Your task to perform on an android device: toggle location history Image 0: 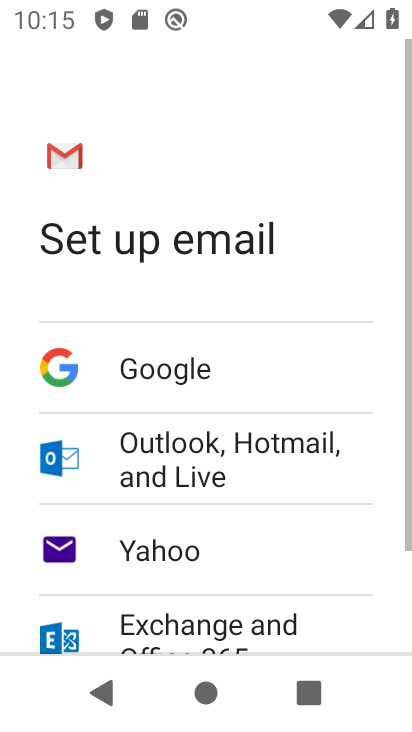
Step 0: press home button
Your task to perform on an android device: toggle location history Image 1: 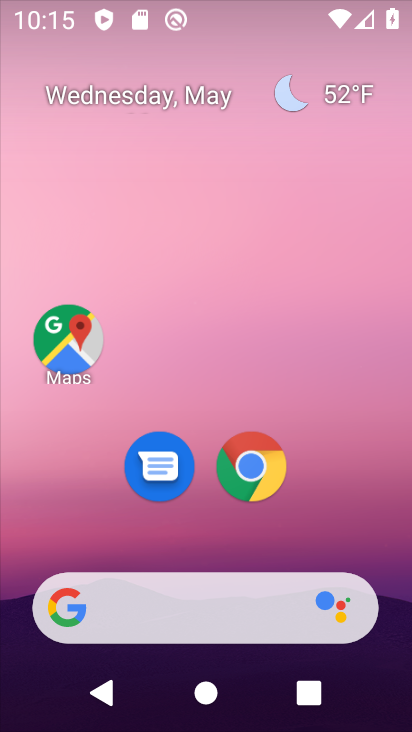
Step 1: drag from (244, 548) to (316, 27)
Your task to perform on an android device: toggle location history Image 2: 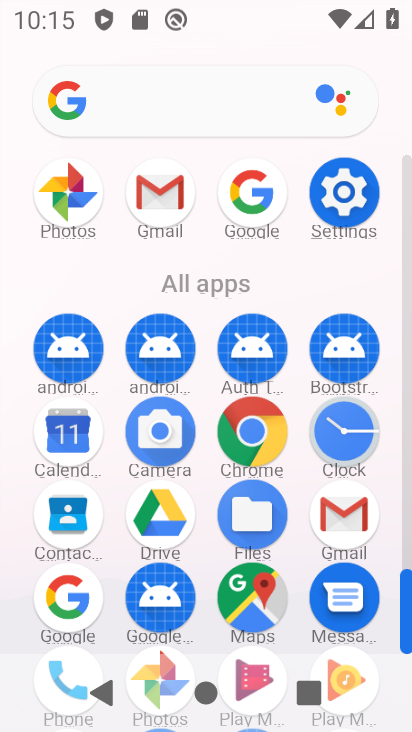
Step 2: click (342, 182)
Your task to perform on an android device: toggle location history Image 3: 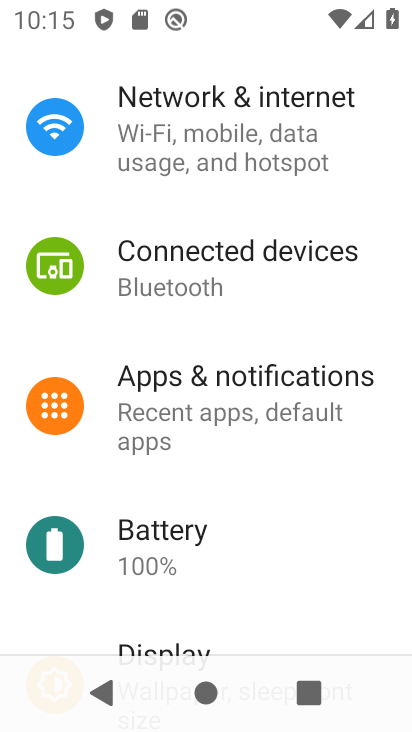
Step 3: drag from (281, 573) to (326, 2)
Your task to perform on an android device: toggle location history Image 4: 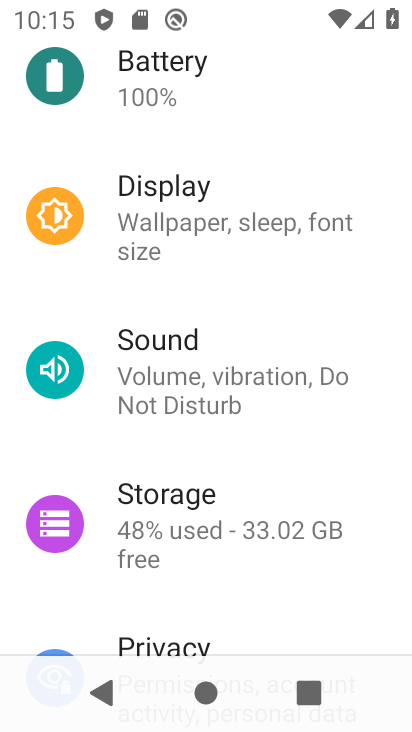
Step 4: drag from (247, 556) to (250, 126)
Your task to perform on an android device: toggle location history Image 5: 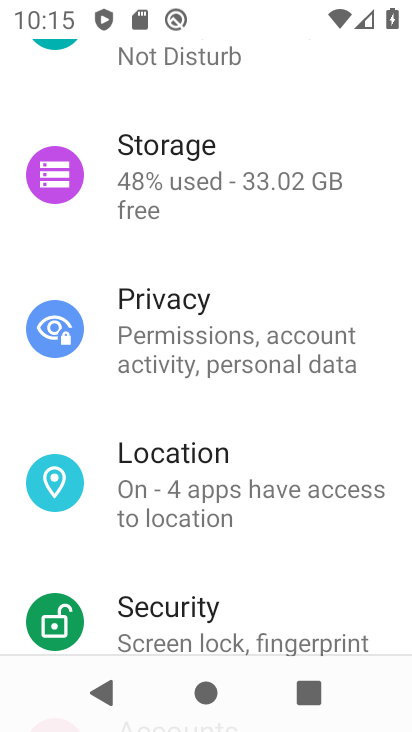
Step 5: click (194, 478)
Your task to perform on an android device: toggle location history Image 6: 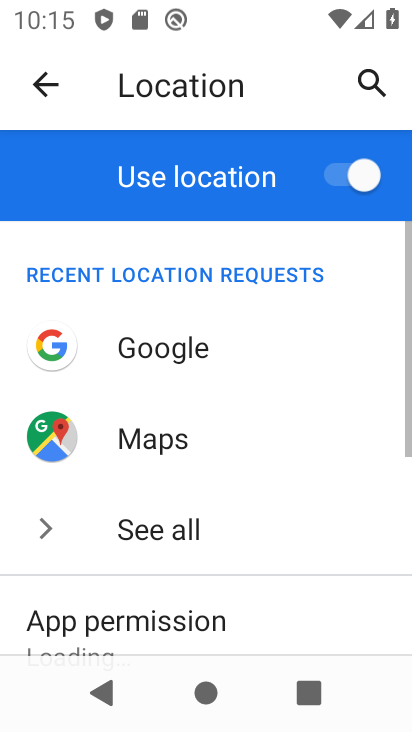
Step 6: drag from (228, 623) to (230, 48)
Your task to perform on an android device: toggle location history Image 7: 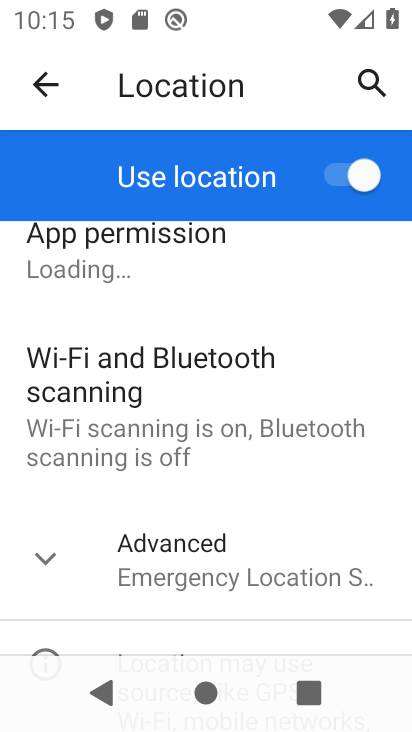
Step 7: click (160, 560)
Your task to perform on an android device: toggle location history Image 8: 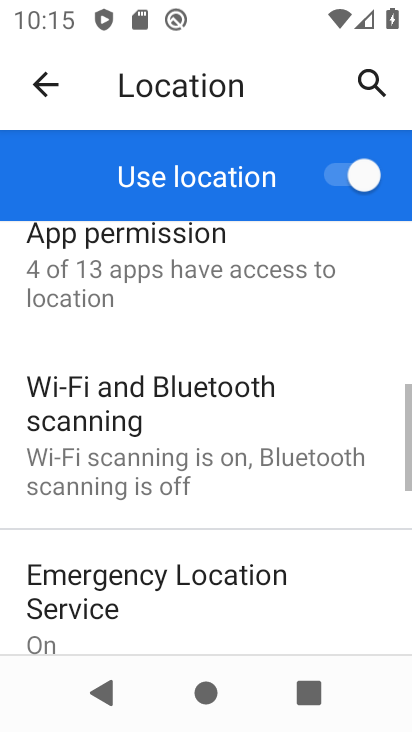
Step 8: drag from (238, 580) to (206, 218)
Your task to perform on an android device: toggle location history Image 9: 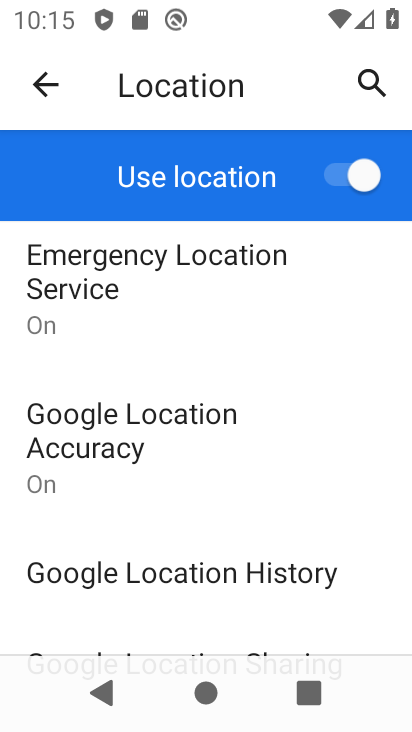
Step 9: click (176, 575)
Your task to perform on an android device: toggle location history Image 10: 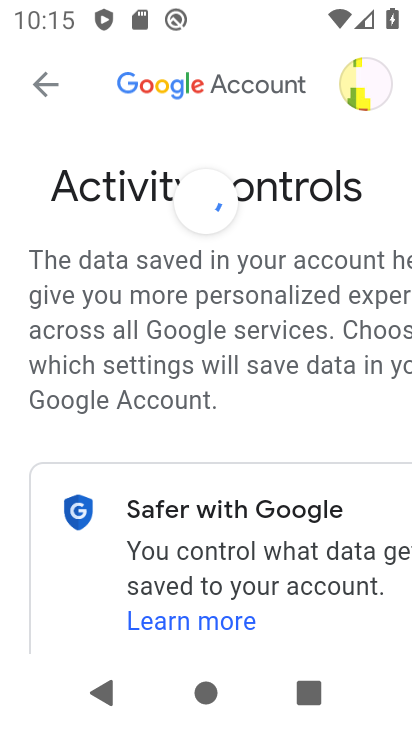
Step 10: drag from (290, 573) to (291, 72)
Your task to perform on an android device: toggle location history Image 11: 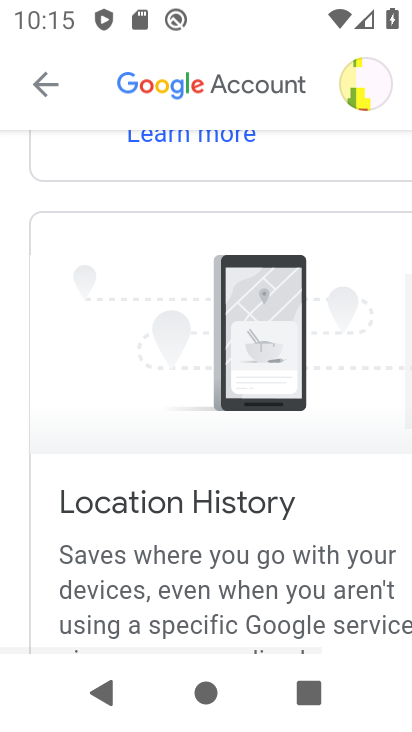
Step 11: drag from (292, 578) to (276, 228)
Your task to perform on an android device: toggle location history Image 12: 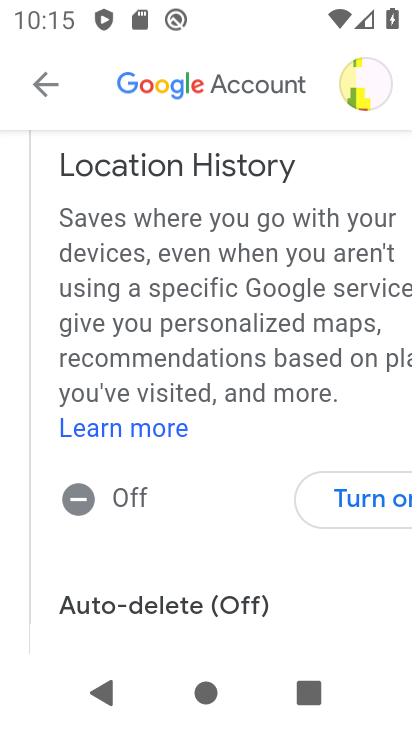
Step 12: click (354, 498)
Your task to perform on an android device: toggle location history Image 13: 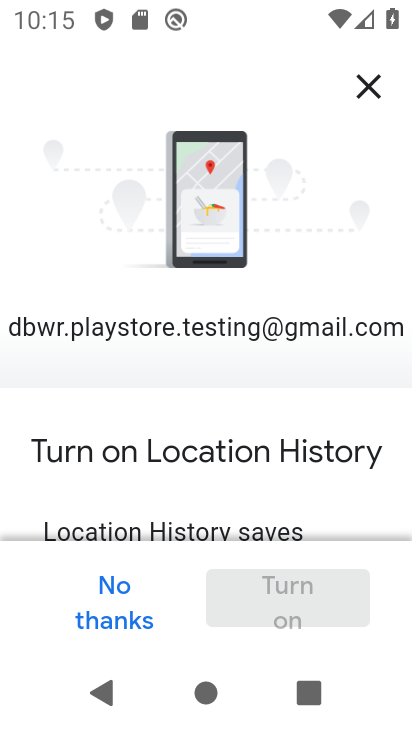
Step 13: drag from (318, 500) to (313, 32)
Your task to perform on an android device: toggle location history Image 14: 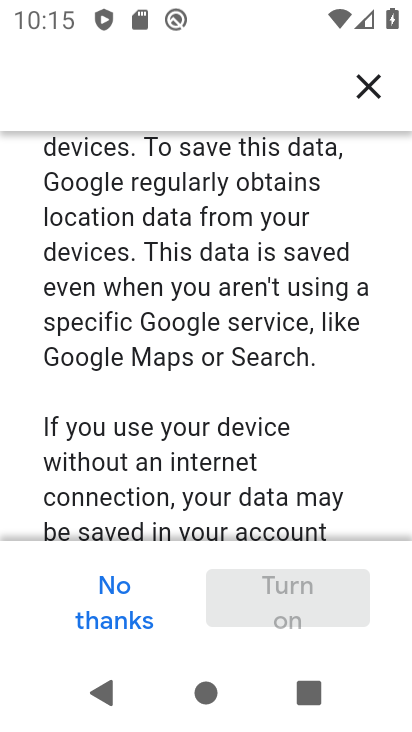
Step 14: drag from (337, 469) to (304, 76)
Your task to perform on an android device: toggle location history Image 15: 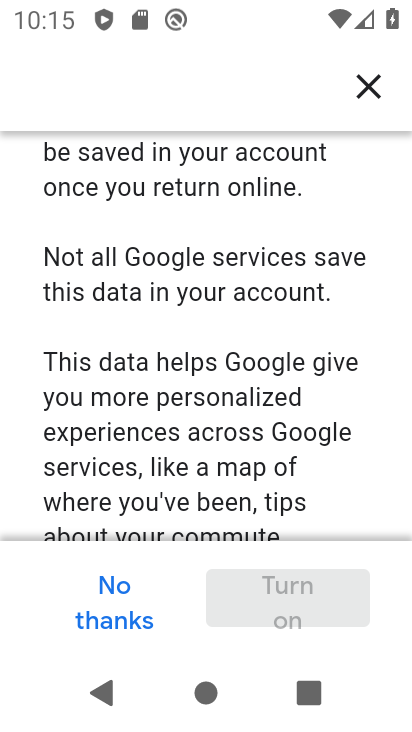
Step 15: drag from (327, 521) to (297, 142)
Your task to perform on an android device: toggle location history Image 16: 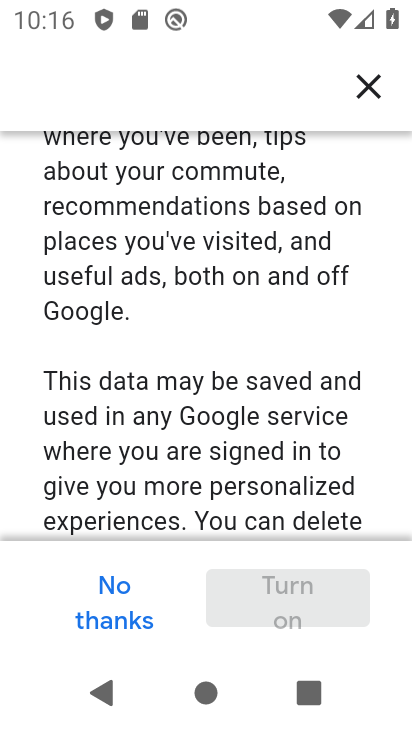
Step 16: drag from (320, 501) to (305, 105)
Your task to perform on an android device: toggle location history Image 17: 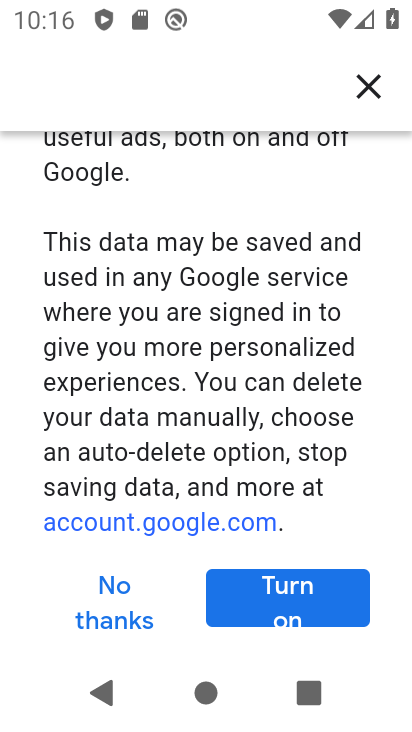
Step 17: click (271, 595)
Your task to perform on an android device: toggle location history Image 18: 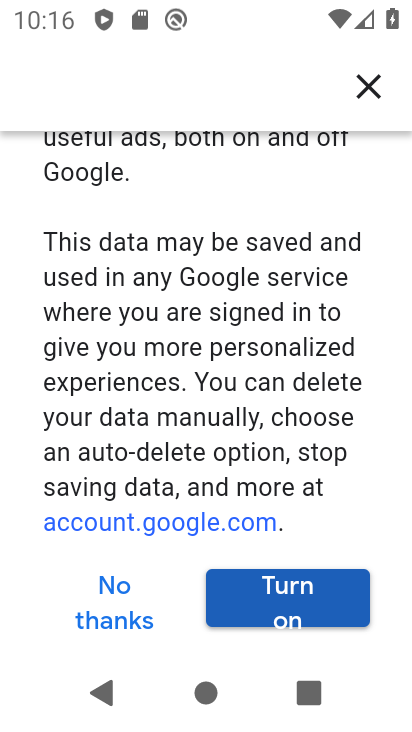
Step 18: click (289, 601)
Your task to perform on an android device: toggle location history Image 19: 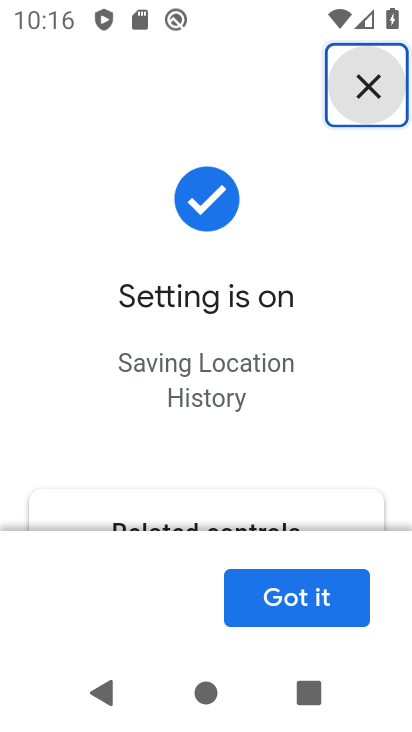
Step 19: task complete